Your task to perform on an android device: change the clock style Image 0: 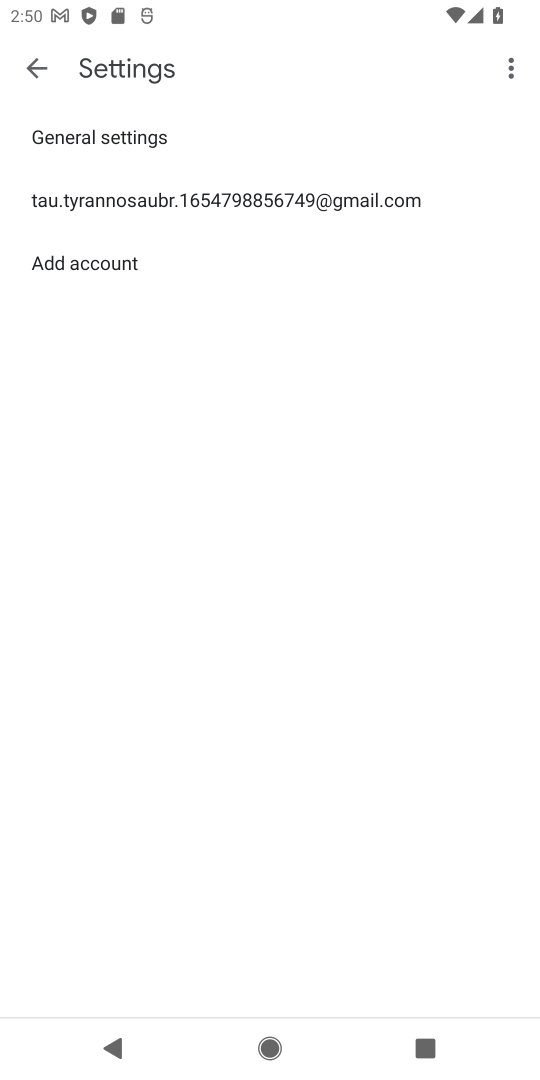
Step 0: press home button
Your task to perform on an android device: change the clock style Image 1: 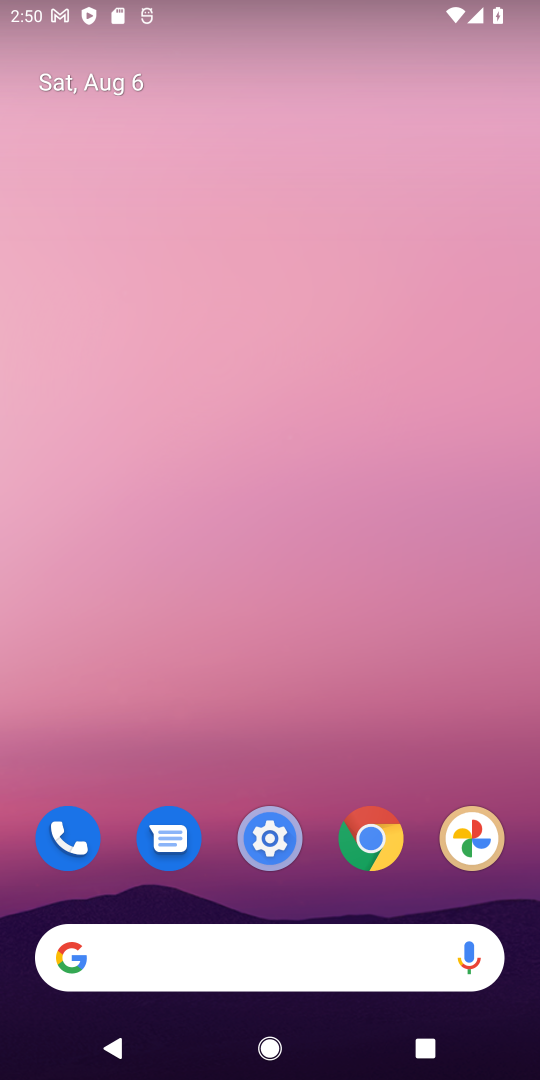
Step 1: drag from (74, 863) to (421, 140)
Your task to perform on an android device: change the clock style Image 2: 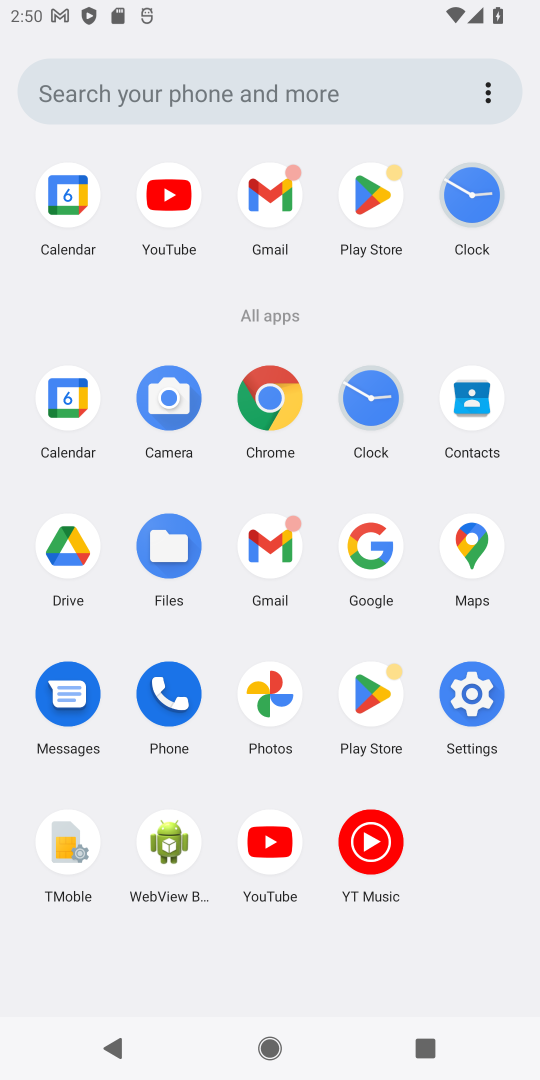
Step 2: click (465, 228)
Your task to perform on an android device: change the clock style Image 3: 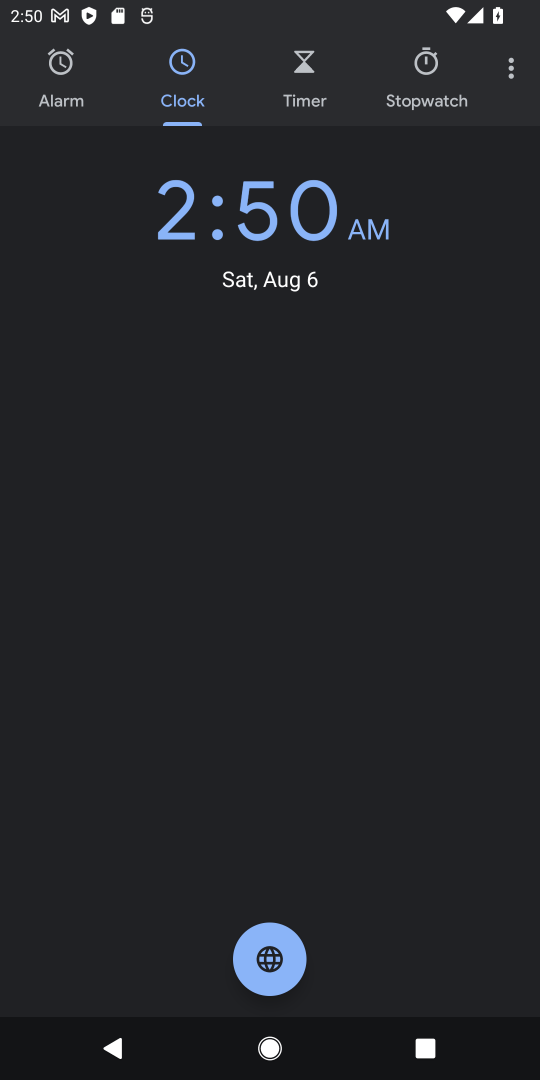
Step 3: click (501, 64)
Your task to perform on an android device: change the clock style Image 4: 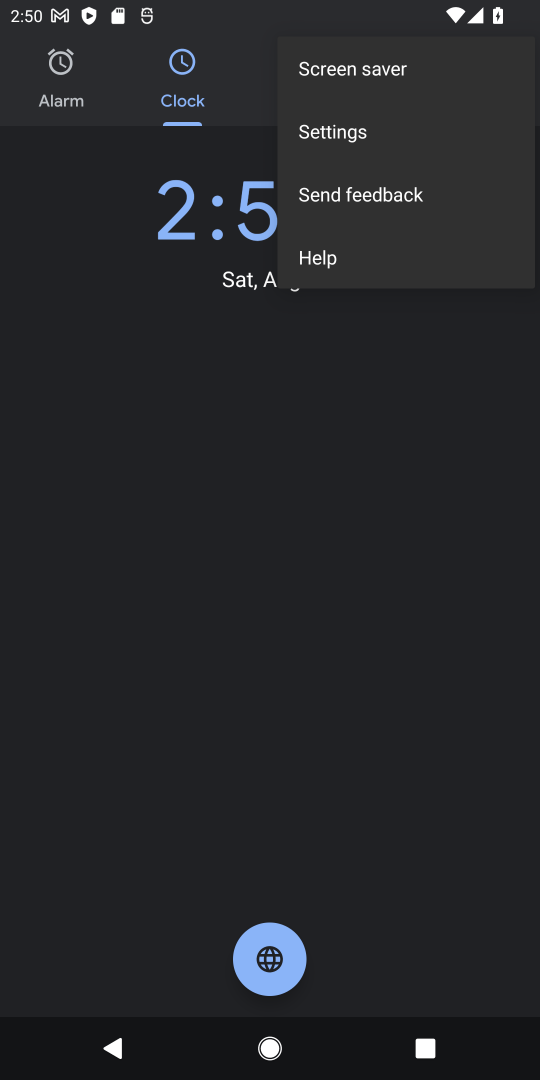
Step 4: click (324, 123)
Your task to perform on an android device: change the clock style Image 5: 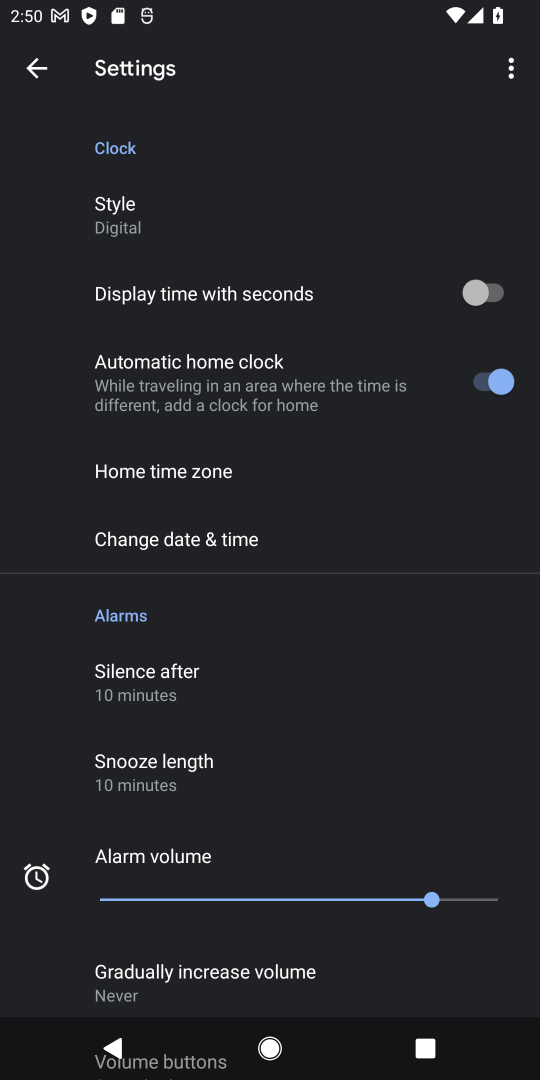
Step 5: click (204, 194)
Your task to perform on an android device: change the clock style Image 6: 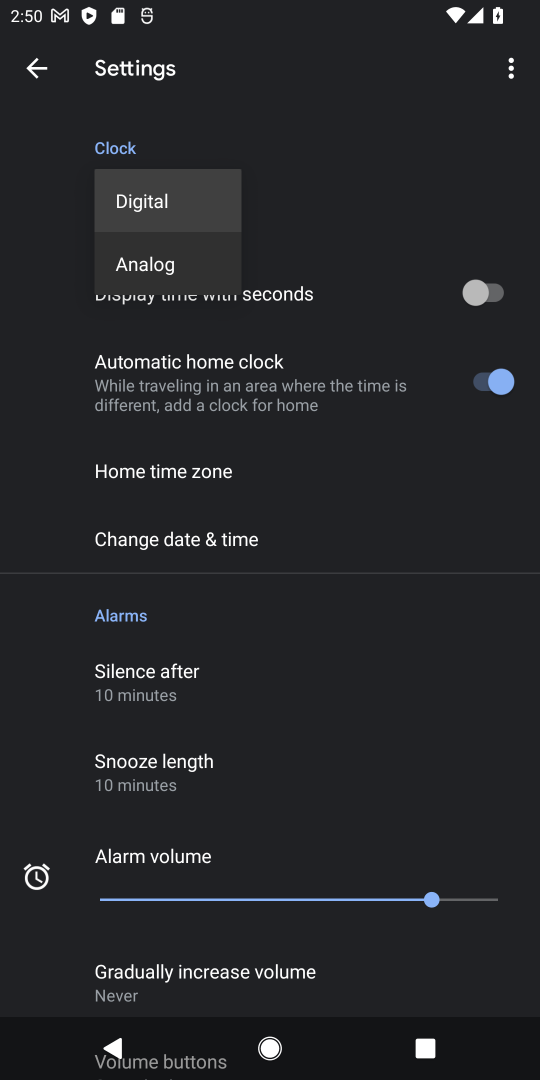
Step 6: click (157, 255)
Your task to perform on an android device: change the clock style Image 7: 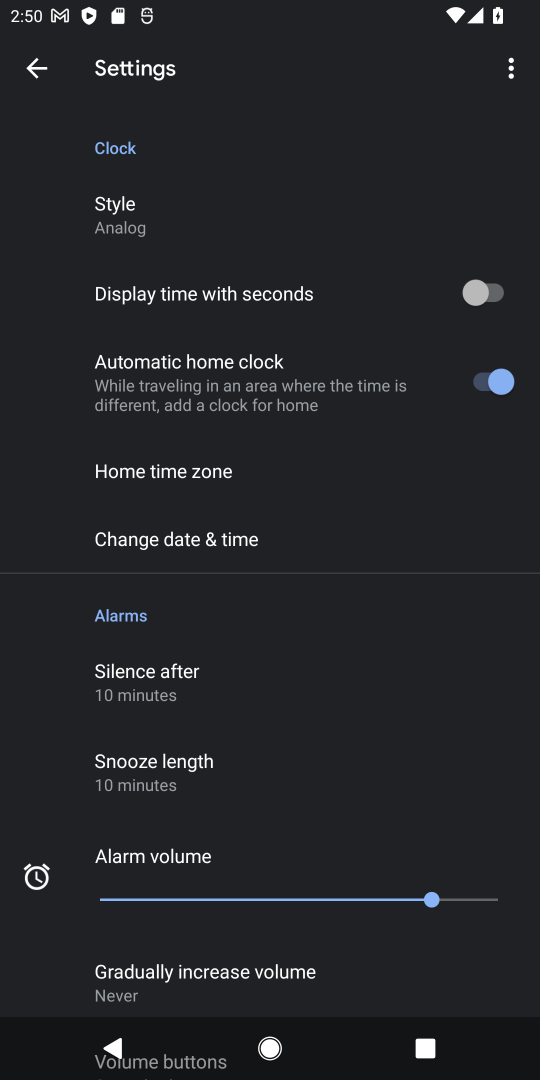
Step 7: task complete